Your task to perform on an android device: toggle notifications settings in the gmail app Image 0: 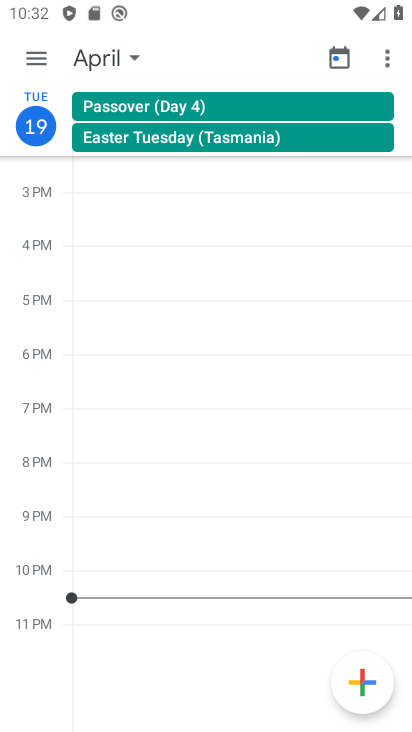
Step 0: press home button
Your task to perform on an android device: toggle notifications settings in the gmail app Image 1: 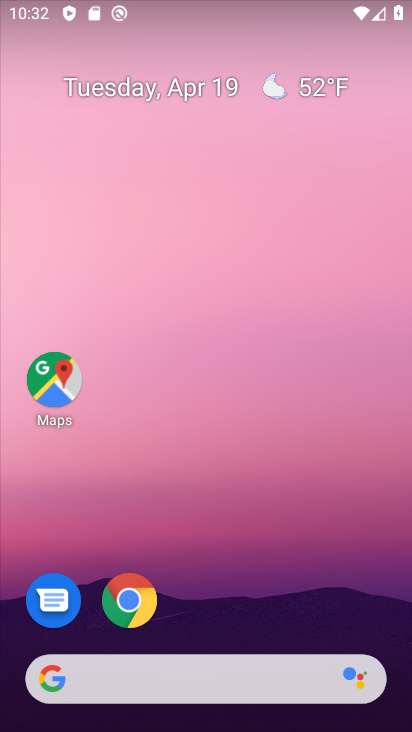
Step 1: drag from (200, 648) to (219, 28)
Your task to perform on an android device: toggle notifications settings in the gmail app Image 2: 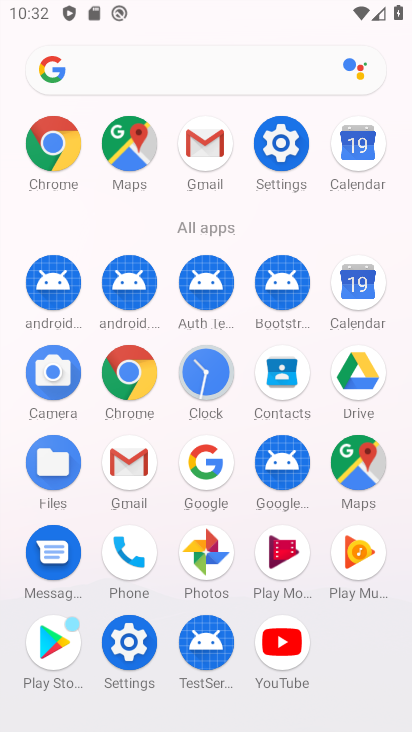
Step 2: click (125, 460)
Your task to perform on an android device: toggle notifications settings in the gmail app Image 3: 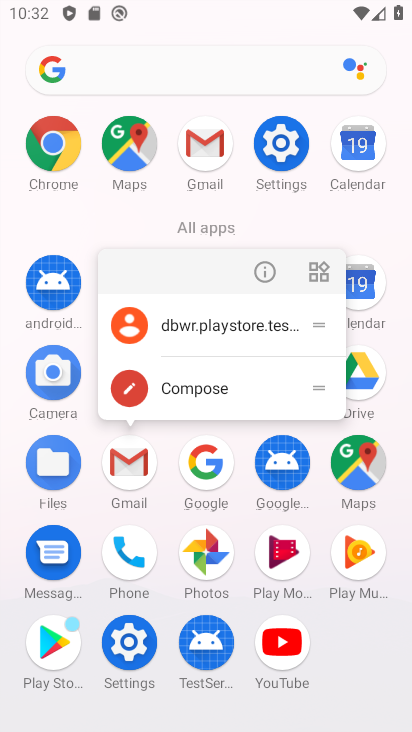
Step 3: click (125, 460)
Your task to perform on an android device: toggle notifications settings in the gmail app Image 4: 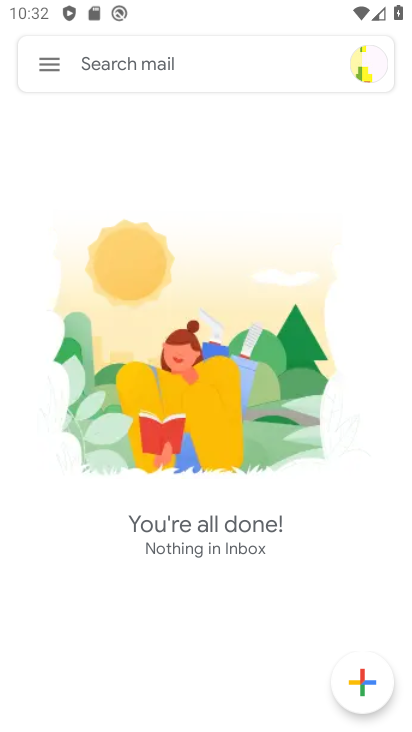
Step 4: click (43, 70)
Your task to perform on an android device: toggle notifications settings in the gmail app Image 5: 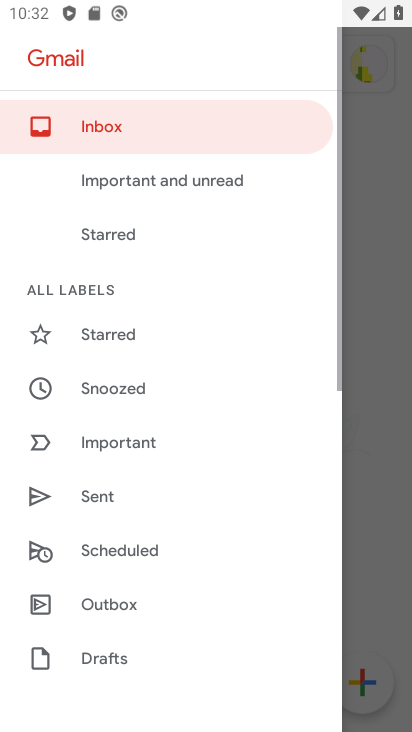
Step 5: drag from (131, 636) to (91, 344)
Your task to perform on an android device: toggle notifications settings in the gmail app Image 6: 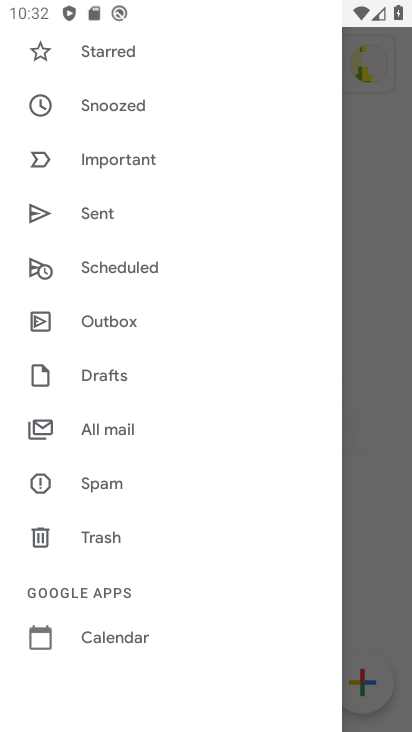
Step 6: drag from (131, 553) to (126, 301)
Your task to perform on an android device: toggle notifications settings in the gmail app Image 7: 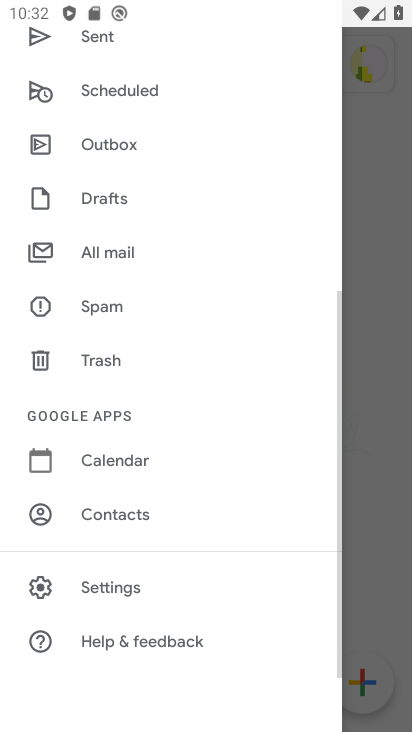
Step 7: click (168, 579)
Your task to perform on an android device: toggle notifications settings in the gmail app Image 8: 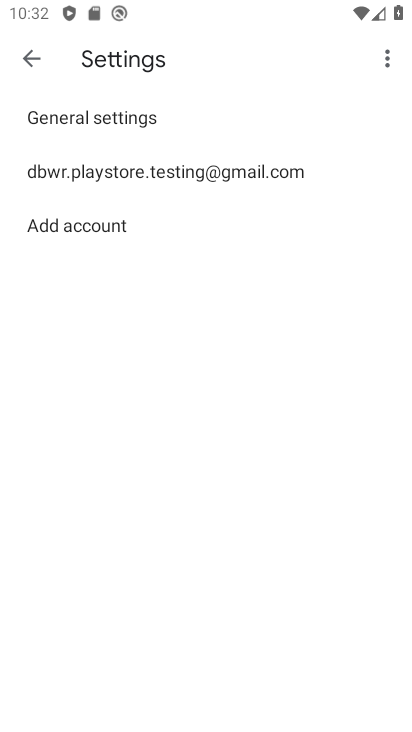
Step 8: click (147, 124)
Your task to perform on an android device: toggle notifications settings in the gmail app Image 9: 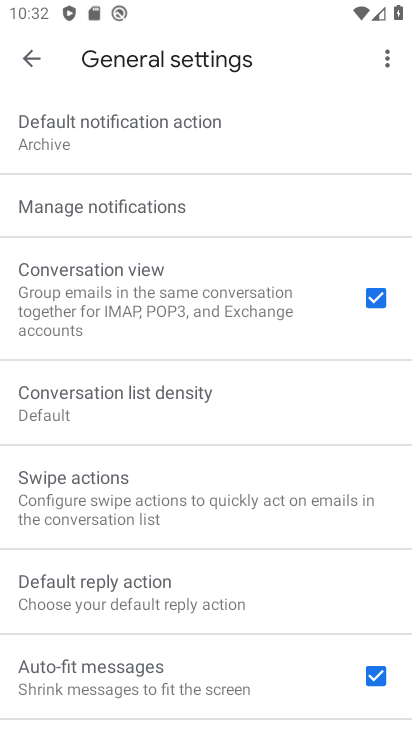
Step 9: click (143, 202)
Your task to perform on an android device: toggle notifications settings in the gmail app Image 10: 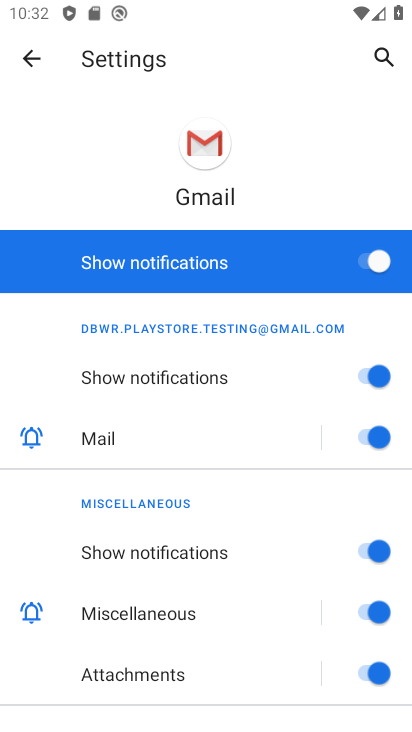
Step 10: click (358, 264)
Your task to perform on an android device: toggle notifications settings in the gmail app Image 11: 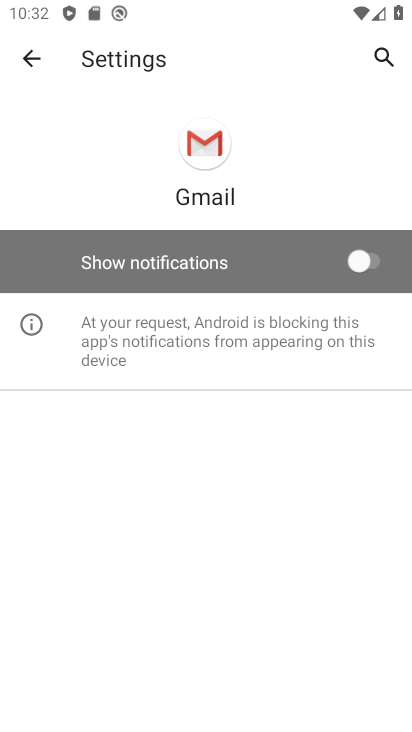
Step 11: task complete